Your task to perform on an android device: Open network settings Image 0: 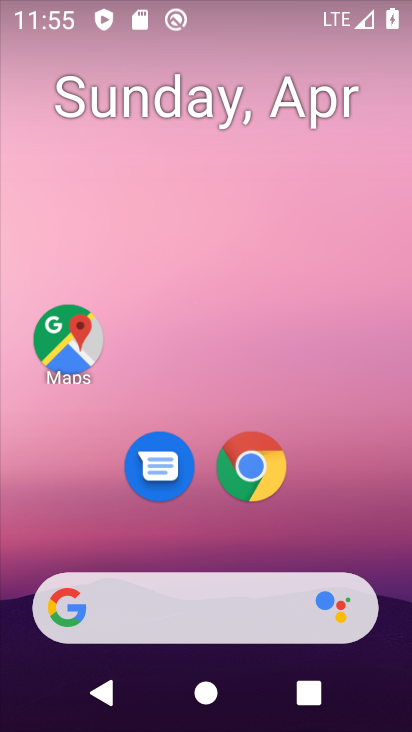
Step 0: drag from (344, 519) to (324, 284)
Your task to perform on an android device: Open network settings Image 1: 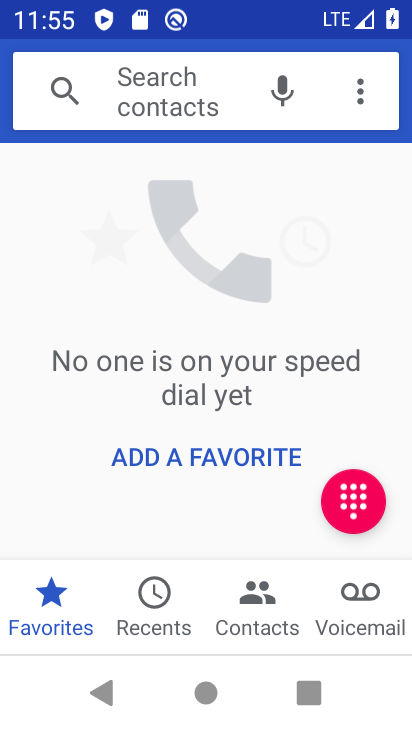
Step 1: press home button
Your task to perform on an android device: Open network settings Image 2: 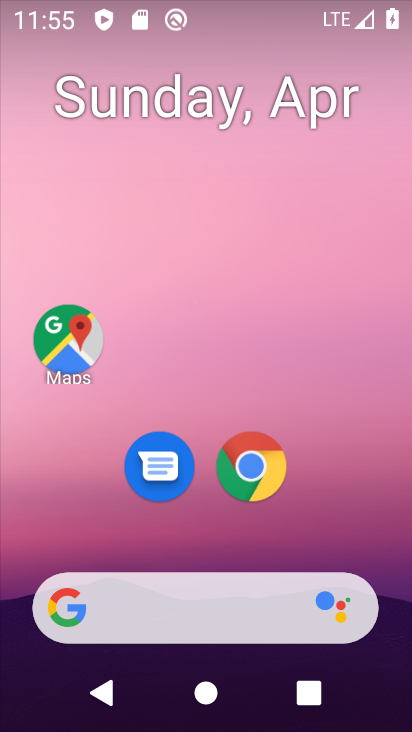
Step 2: drag from (363, 547) to (317, 164)
Your task to perform on an android device: Open network settings Image 3: 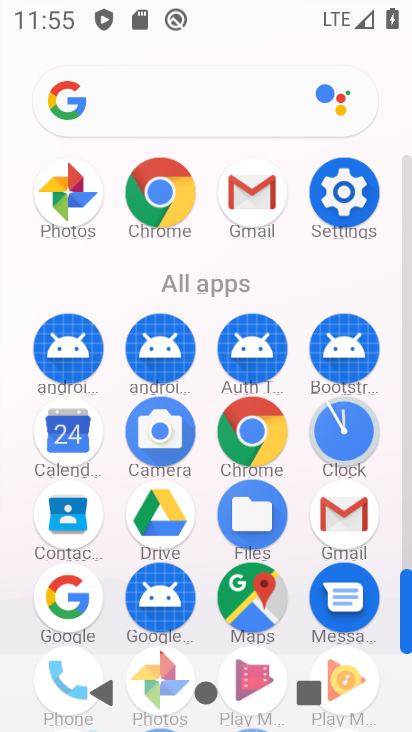
Step 3: click (344, 200)
Your task to perform on an android device: Open network settings Image 4: 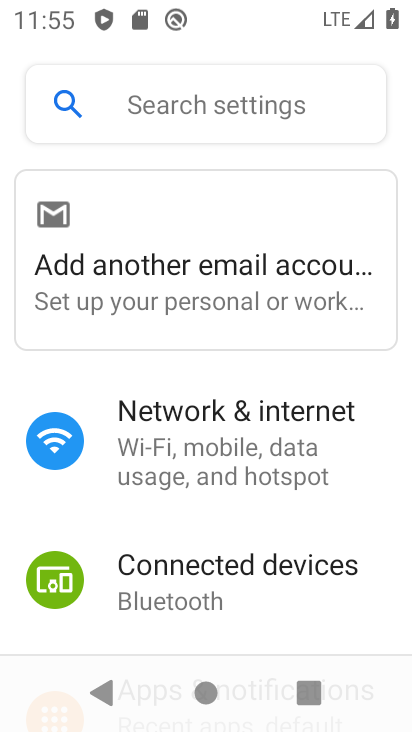
Step 4: click (247, 474)
Your task to perform on an android device: Open network settings Image 5: 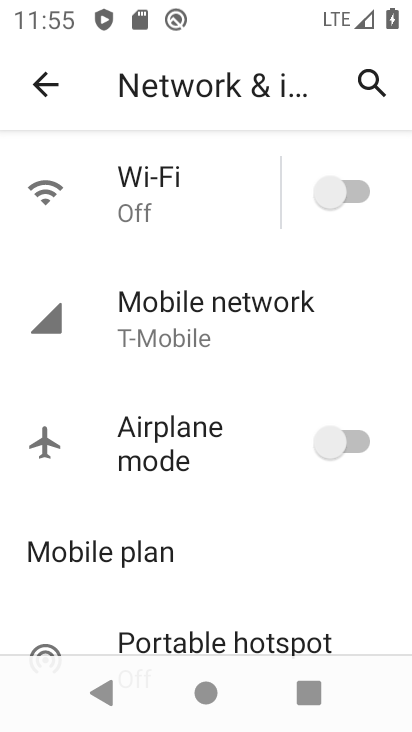
Step 5: task complete